Your task to perform on an android device: Open settings Image 0: 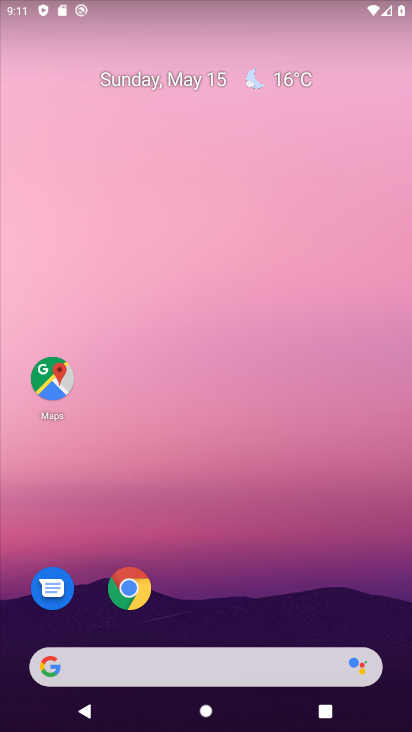
Step 0: drag from (254, 605) to (258, 238)
Your task to perform on an android device: Open settings Image 1: 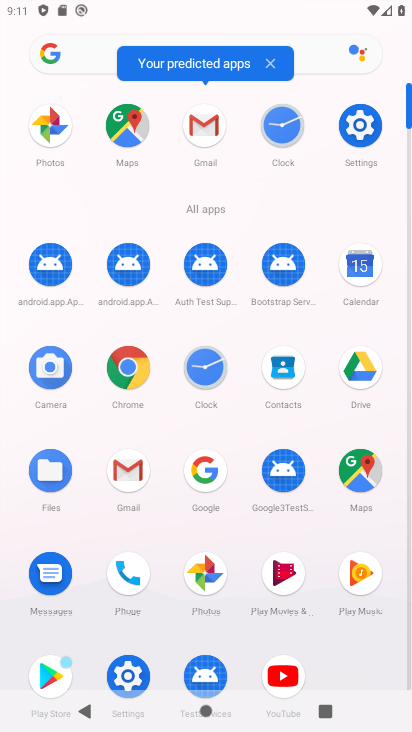
Step 1: click (348, 127)
Your task to perform on an android device: Open settings Image 2: 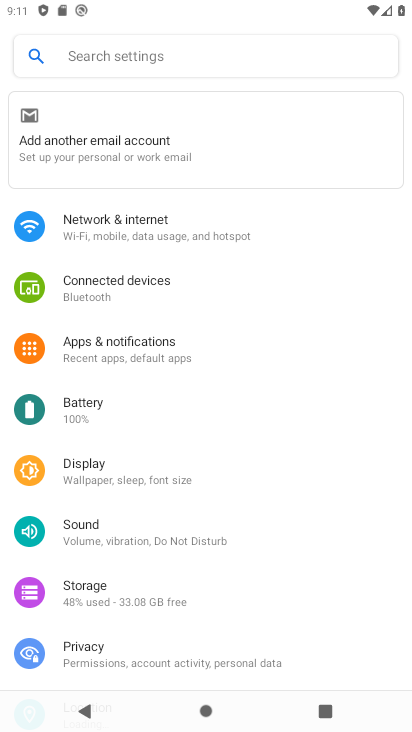
Step 2: task complete